Your task to perform on an android device: Go to Amazon Image 0: 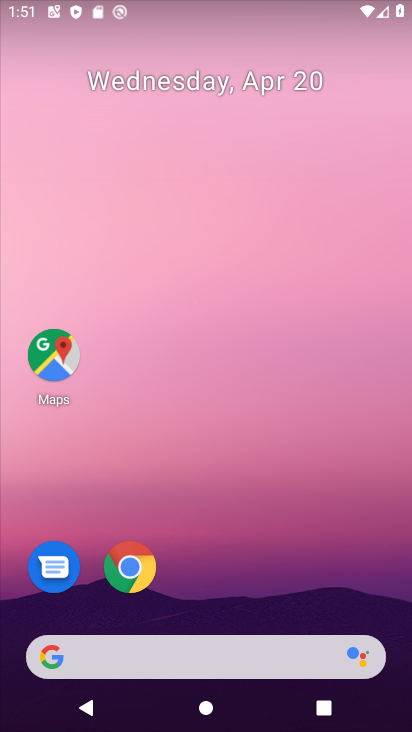
Step 0: click (137, 580)
Your task to perform on an android device: Go to Amazon Image 1: 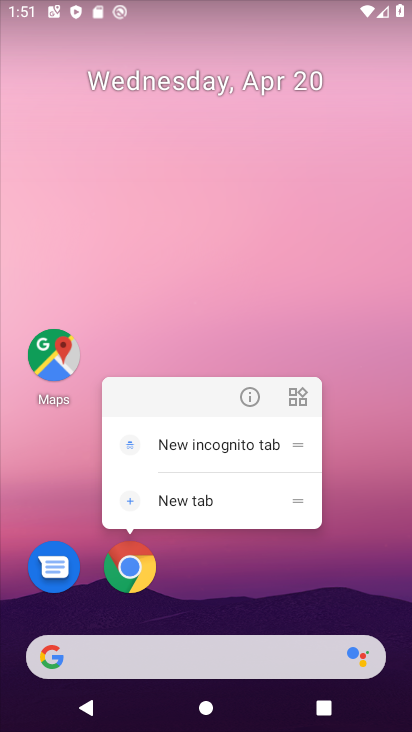
Step 1: click (132, 571)
Your task to perform on an android device: Go to Amazon Image 2: 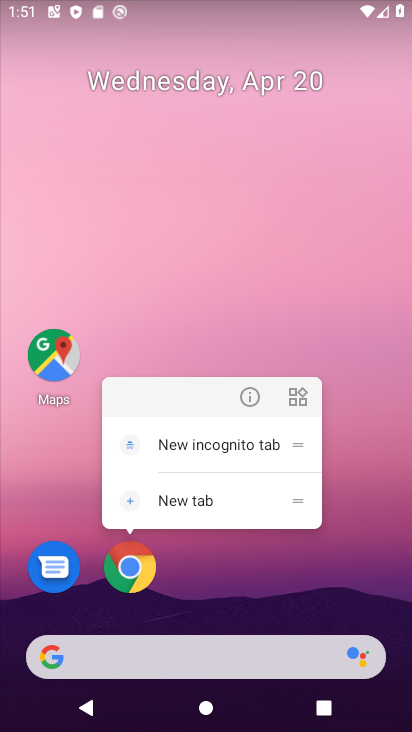
Step 2: click (128, 588)
Your task to perform on an android device: Go to Amazon Image 3: 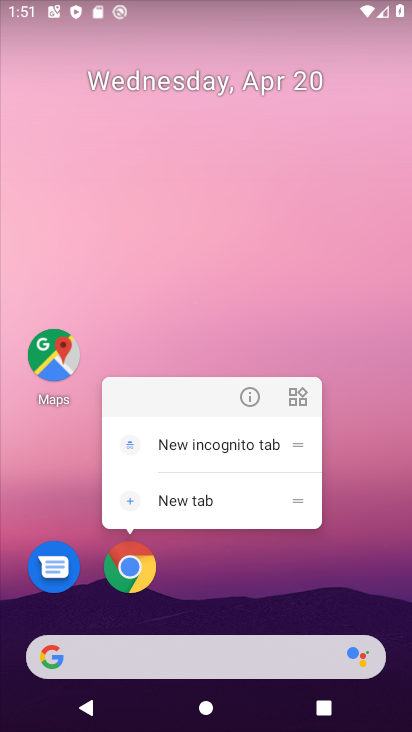
Step 3: click (142, 569)
Your task to perform on an android device: Go to Amazon Image 4: 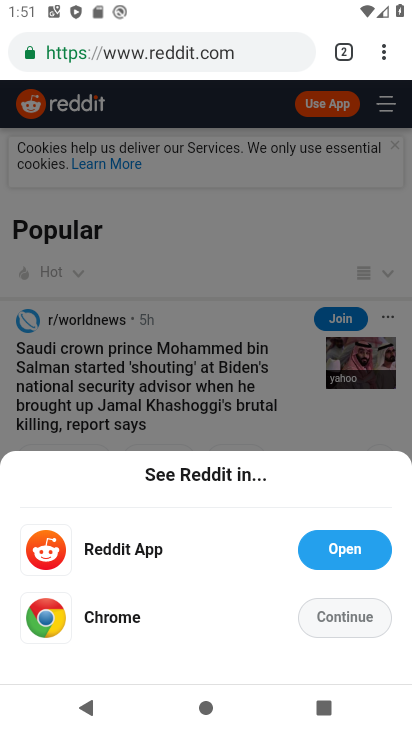
Step 4: click (348, 53)
Your task to perform on an android device: Go to Amazon Image 5: 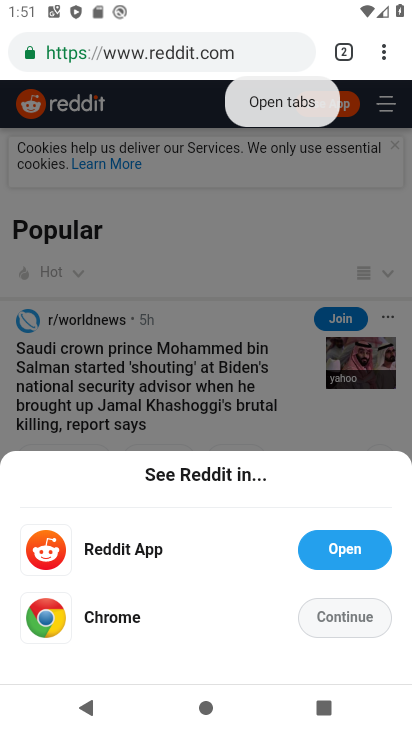
Step 5: click (92, 52)
Your task to perform on an android device: Go to Amazon Image 6: 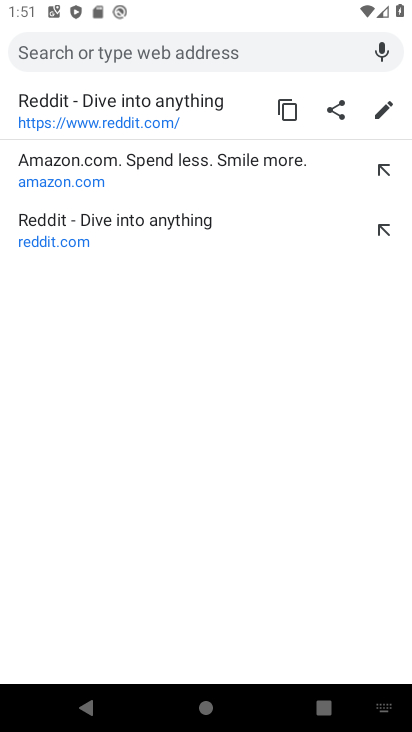
Step 6: click (81, 169)
Your task to perform on an android device: Go to Amazon Image 7: 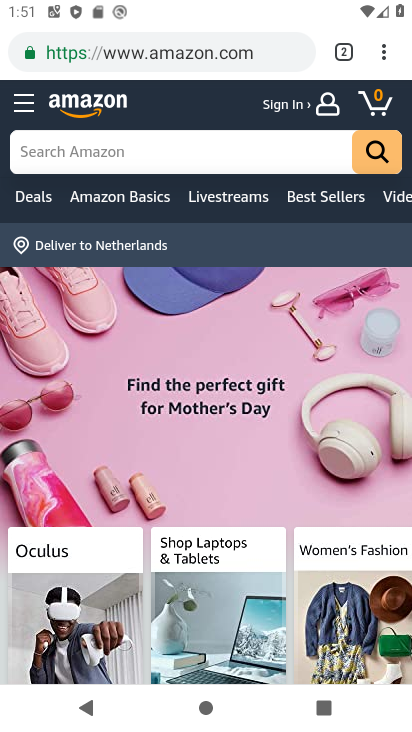
Step 7: task complete